Your task to perform on an android device: find photos in the google photos app Image 0: 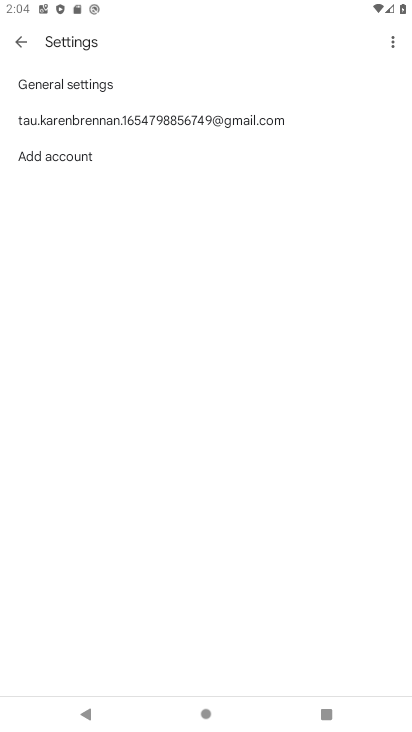
Step 0: press home button
Your task to perform on an android device: find photos in the google photos app Image 1: 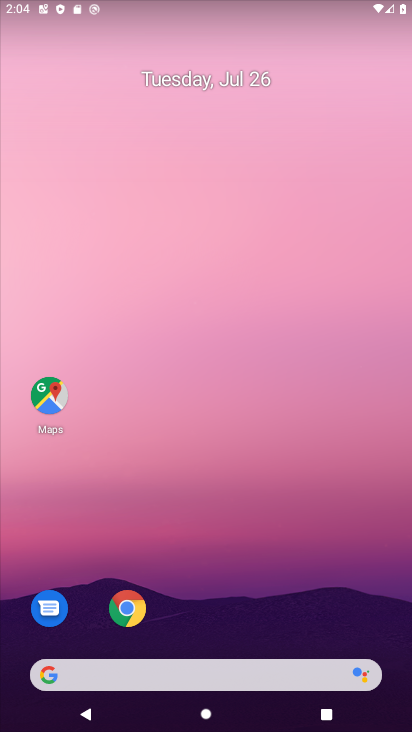
Step 1: drag from (302, 622) to (296, 181)
Your task to perform on an android device: find photos in the google photos app Image 2: 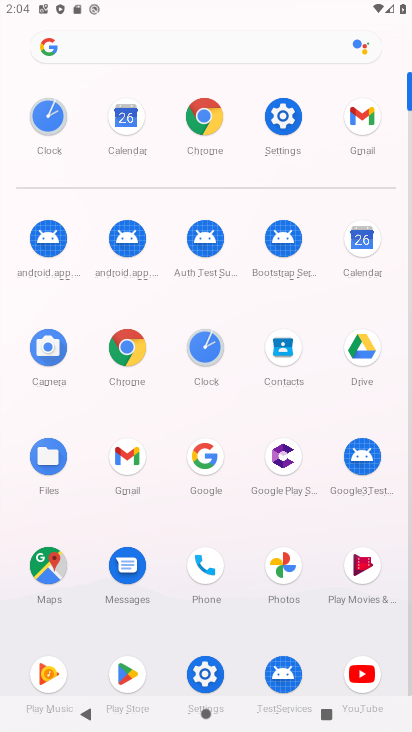
Step 2: click (271, 569)
Your task to perform on an android device: find photos in the google photos app Image 3: 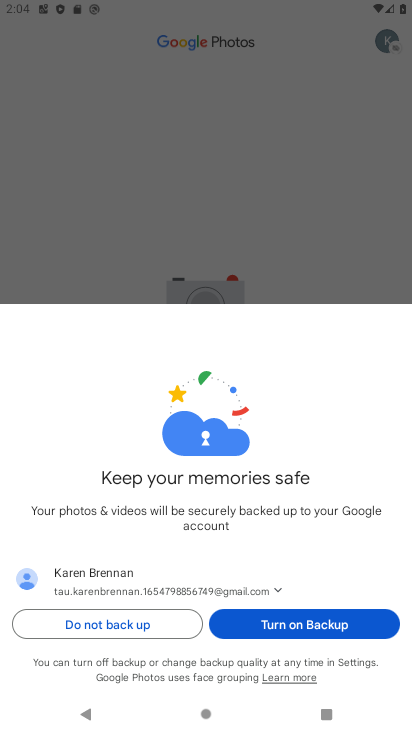
Step 3: click (163, 614)
Your task to perform on an android device: find photos in the google photos app Image 4: 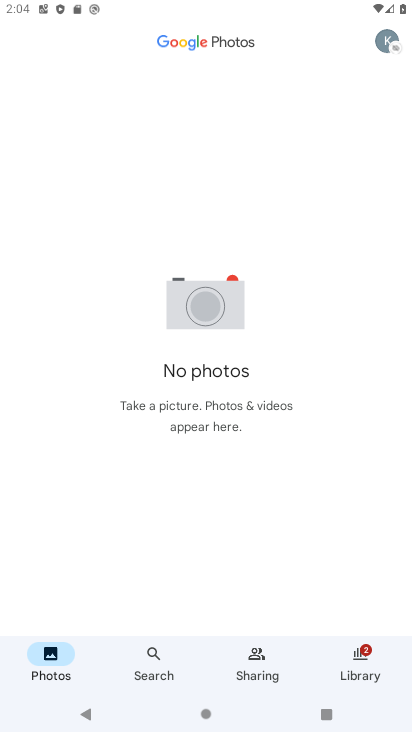
Step 4: task complete